Your task to perform on an android device: add a contact in the contacts app Image 0: 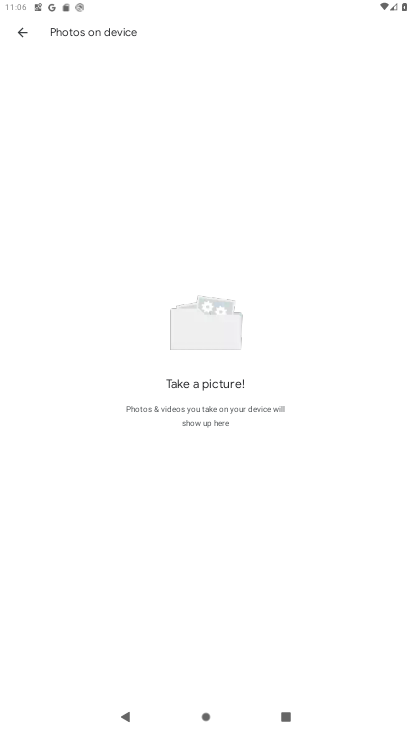
Step 0: press home button
Your task to perform on an android device: add a contact in the contacts app Image 1: 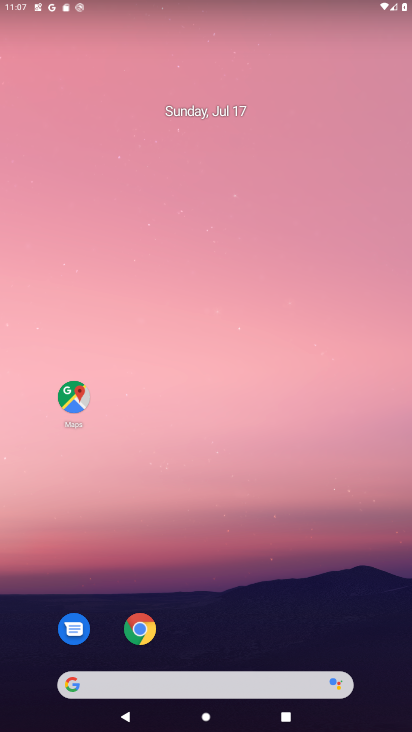
Step 1: drag from (163, 682) to (316, 32)
Your task to perform on an android device: add a contact in the contacts app Image 2: 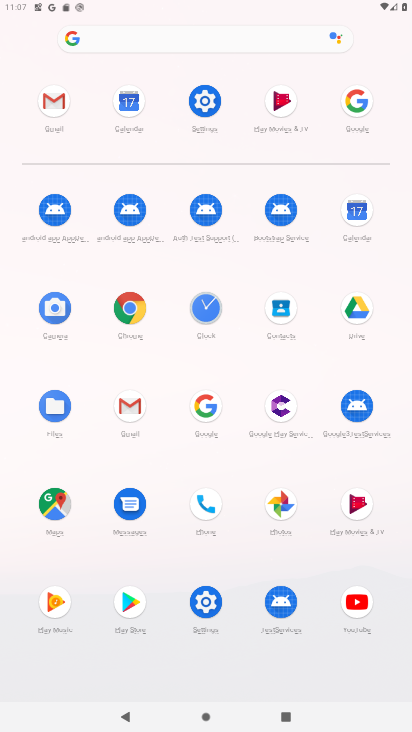
Step 2: click (283, 307)
Your task to perform on an android device: add a contact in the contacts app Image 3: 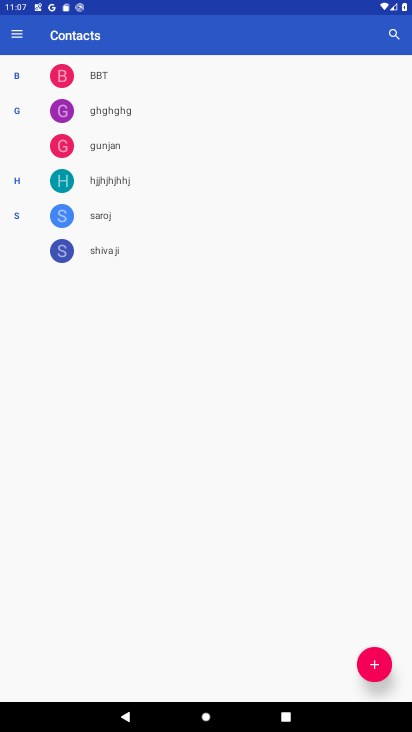
Step 3: click (378, 665)
Your task to perform on an android device: add a contact in the contacts app Image 4: 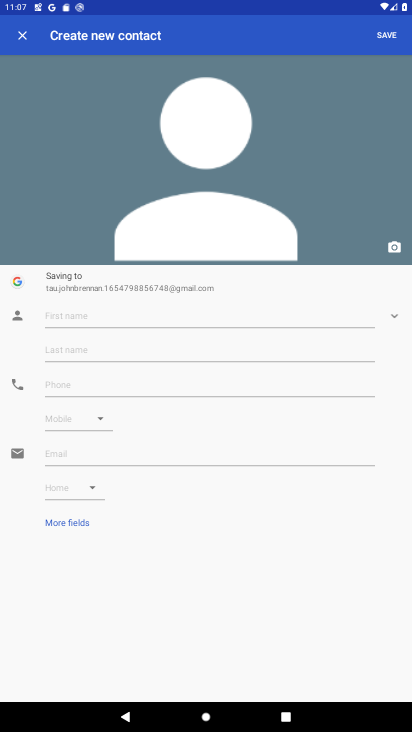
Step 4: click (210, 316)
Your task to perform on an android device: add a contact in the contacts app Image 5: 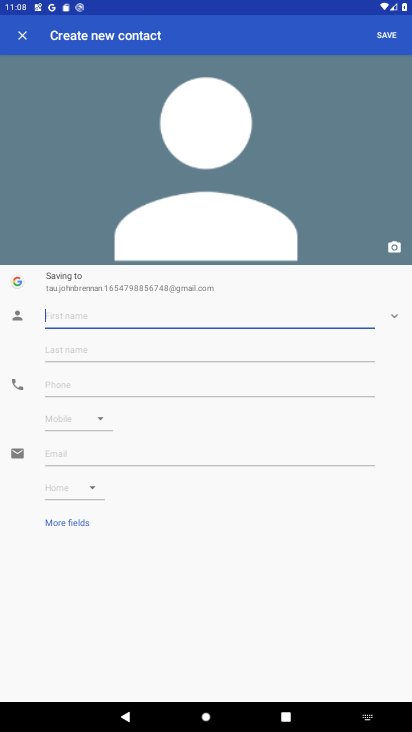
Step 5: type "Cheteshwar"
Your task to perform on an android device: add a contact in the contacts app Image 6: 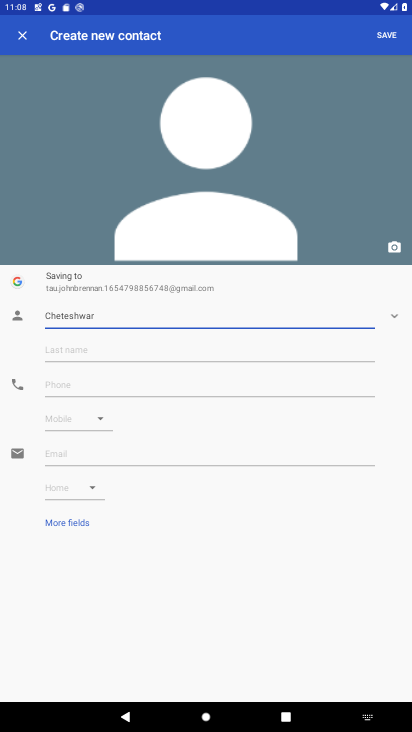
Step 6: click (184, 351)
Your task to perform on an android device: add a contact in the contacts app Image 7: 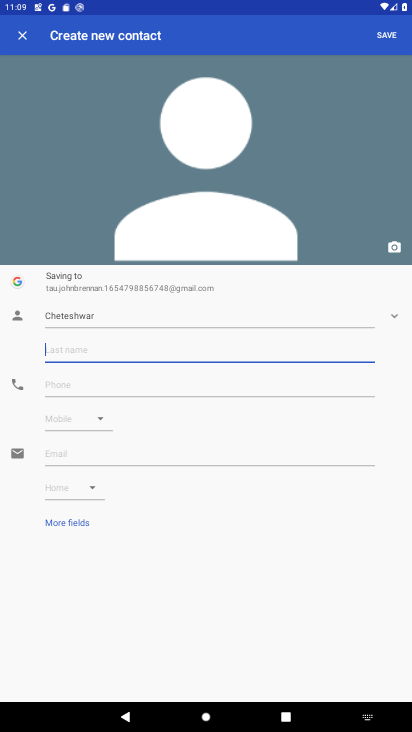
Step 7: type "Pujara"
Your task to perform on an android device: add a contact in the contacts app Image 8: 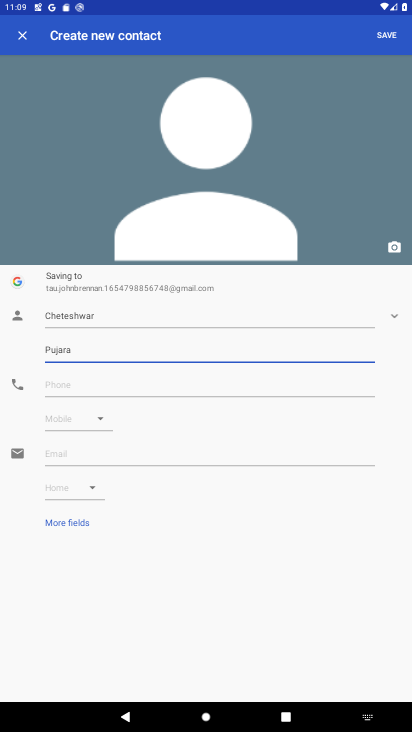
Step 8: click (265, 385)
Your task to perform on an android device: add a contact in the contacts app Image 9: 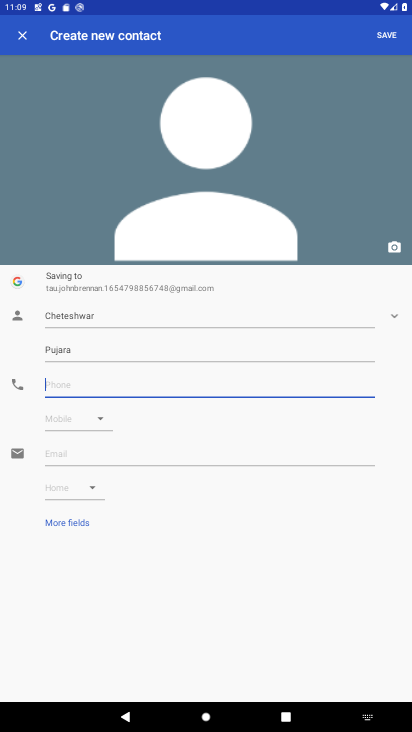
Step 9: type "0987654321"
Your task to perform on an android device: add a contact in the contacts app Image 10: 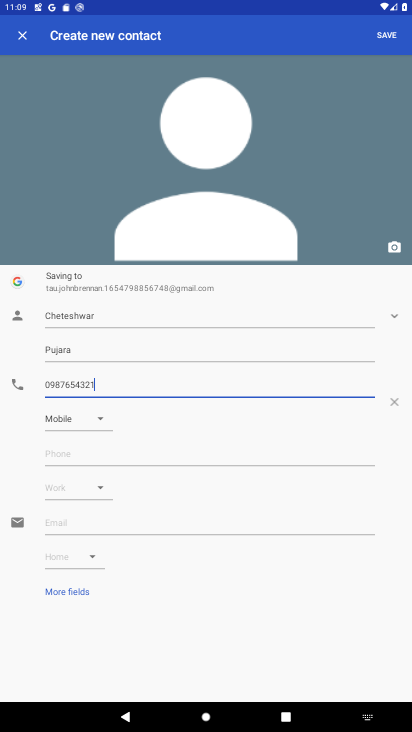
Step 10: click (381, 35)
Your task to perform on an android device: add a contact in the contacts app Image 11: 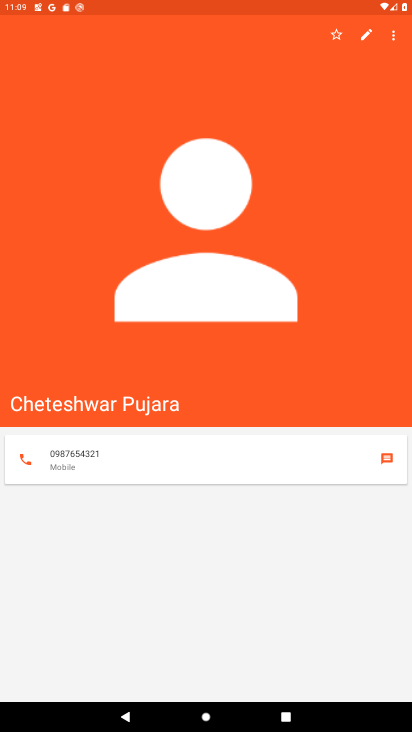
Step 11: task complete